Your task to perform on an android device: Is it going to rain tomorrow? Image 0: 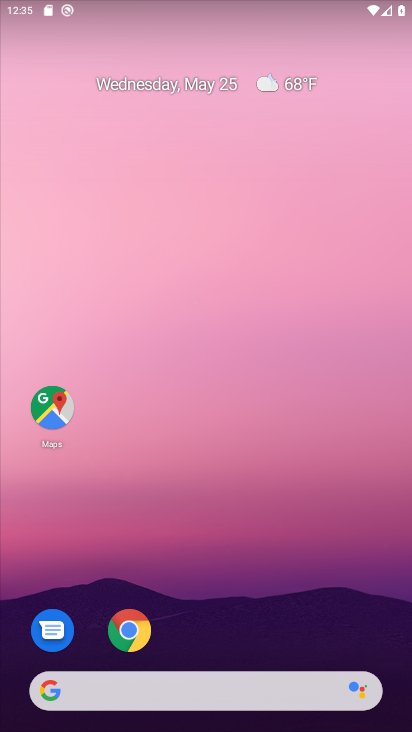
Step 0: drag from (221, 587) to (227, 90)
Your task to perform on an android device: Is it going to rain tomorrow? Image 1: 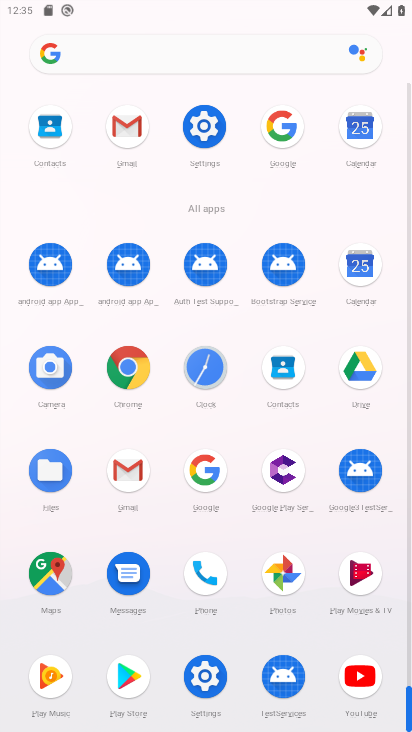
Step 1: click (209, 472)
Your task to perform on an android device: Is it going to rain tomorrow? Image 2: 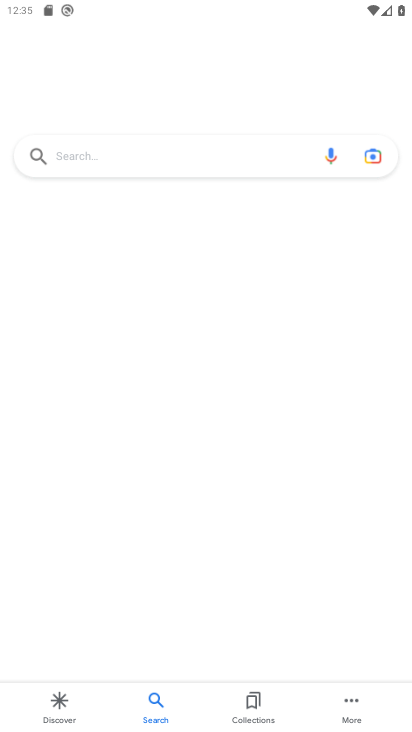
Step 2: click (125, 151)
Your task to perform on an android device: Is it going to rain tomorrow? Image 3: 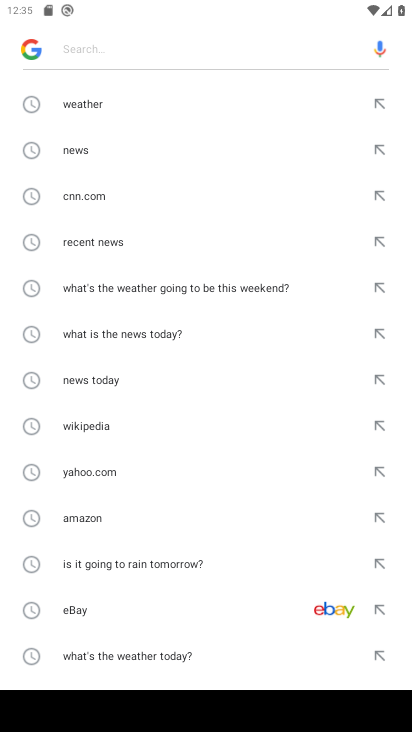
Step 3: click (99, 106)
Your task to perform on an android device: Is it going to rain tomorrow? Image 4: 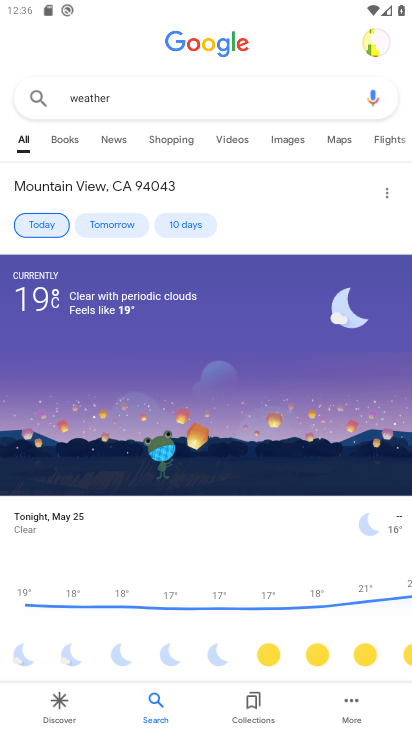
Step 4: click (133, 227)
Your task to perform on an android device: Is it going to rain tomorrow? Image 5: 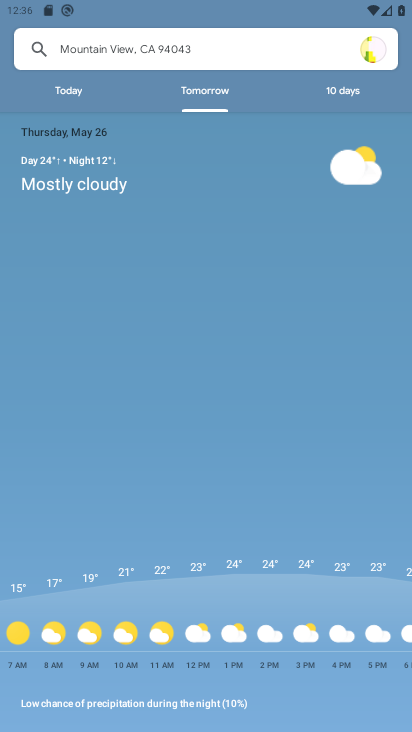
Step 5: task complete